Your task to perform on an android device: change keyboard looks Image 0: 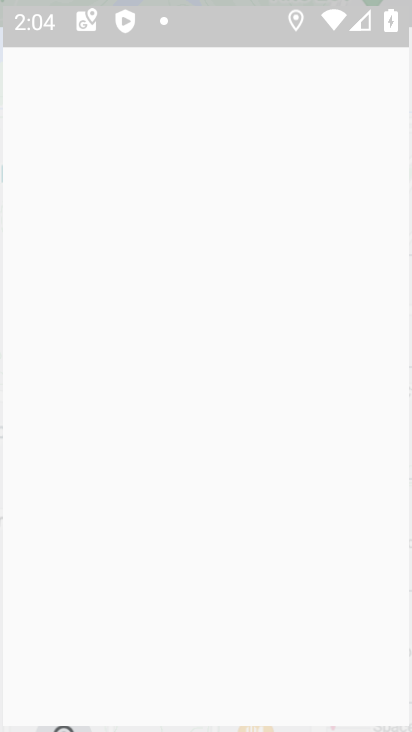
Step 0: press back button
Your task to perform on an android device: change keyboard looks Image 1: 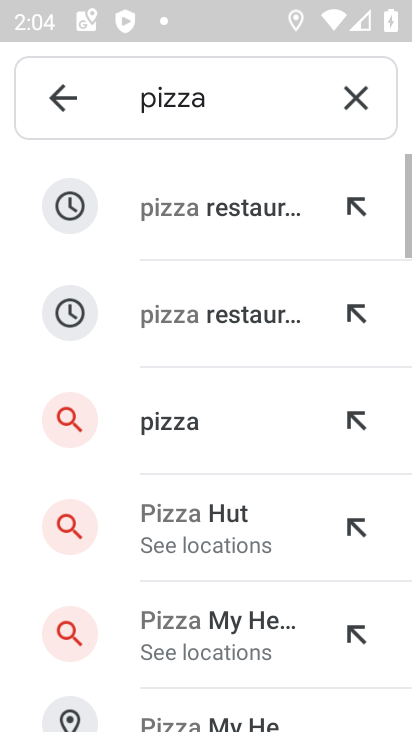
Step 1: press back button
Your task to perform on an android device: change keyboard looks Image 2: 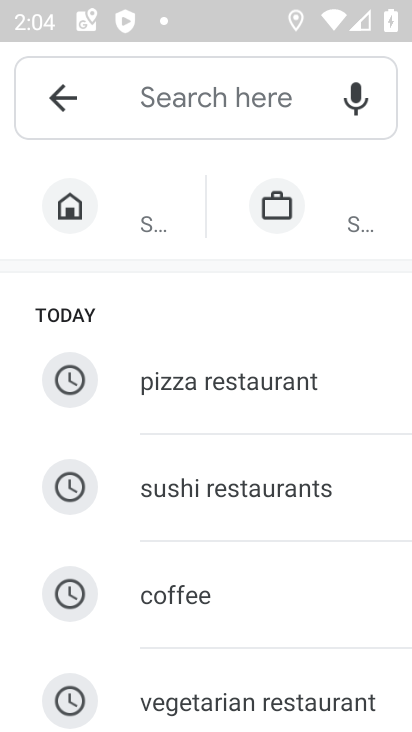
Step 2: press home button
Your task to perform on an android device: change keyboard looks Image 3: 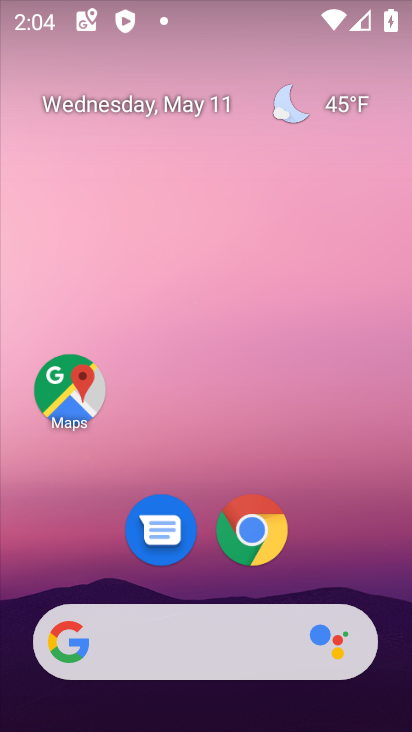
Step 3: drag from (164, 140) to (159, 105)
Your task to perform on an android device: change keyboard looks Image 4: 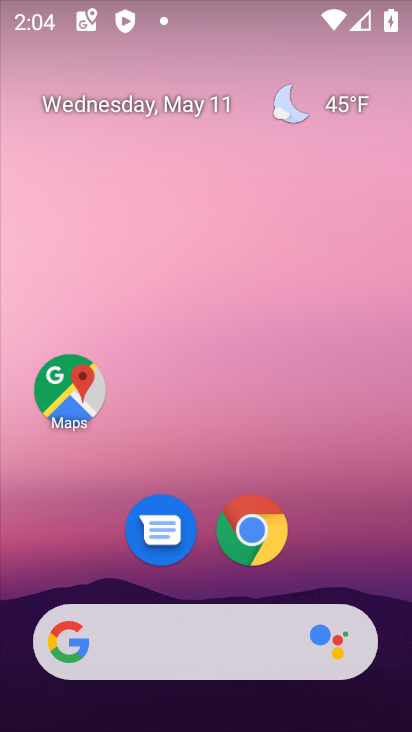
Step 4: drag from (348, 503) to (149, 105)
Your task to perform on an android device: change keyboard looks Image 5: 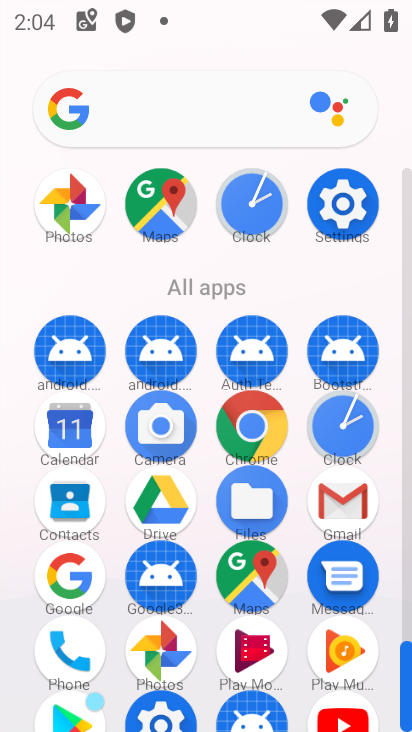
Step 5: drag from (327, 520) to (174, 214)
Your task to perform on an android device: change keyboard looks Image 6: 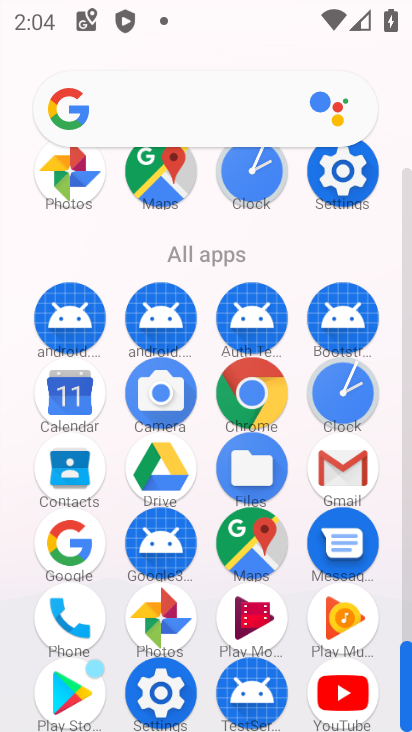
Step 6: click (346, 173)
Your task to perform on an android device: change keyboard looks Image 7: 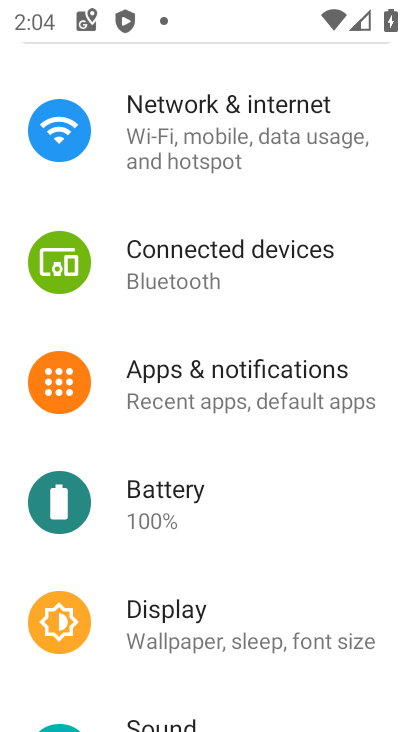
Step 7: drag from (232, 543) to (197, 275)
Your task to perform on an android device: change keyboard looks Image 8: 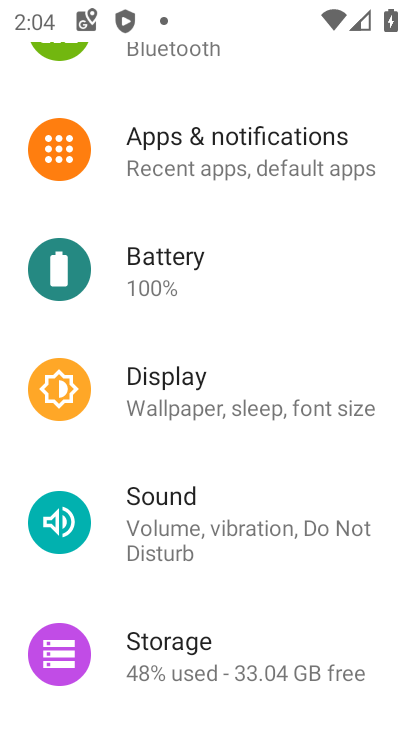
Step 8: drag from (179, 170) to (169, 102)
Your task to perform on an android device: change keyboard looks Image 9: 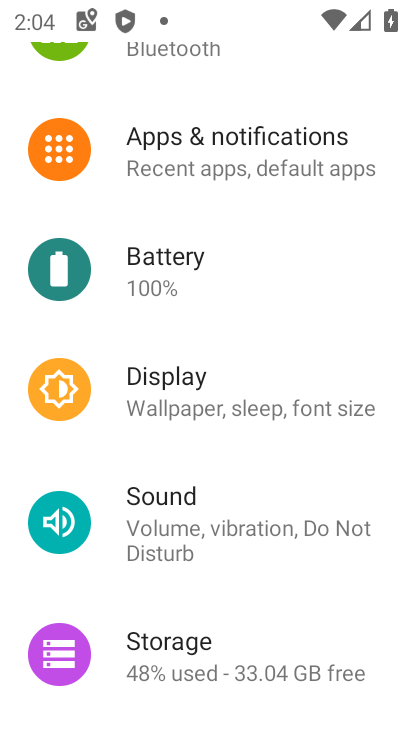
Step 9: drag from (240, 434) to (211, 229)
Your task to perform on an android device: change keyboard looks Image 10: 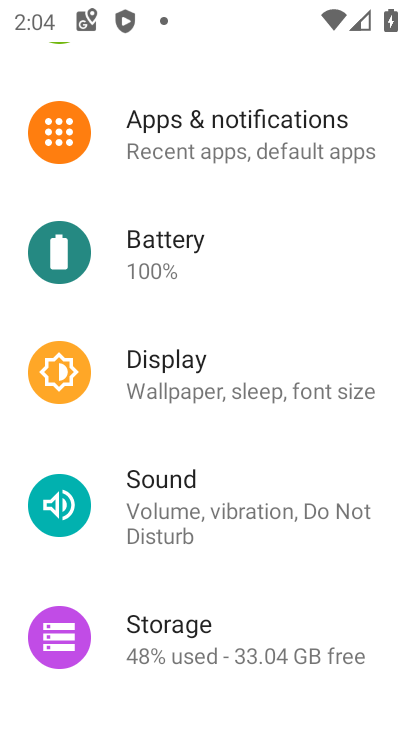
Step 10: drag from (209, 633) to (258, 168)
Your task to perform on an android device: change keyboard looks Image 11: 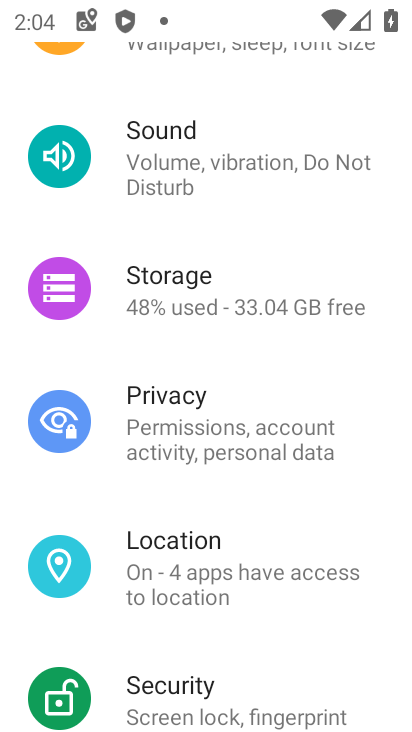
Step 11: drag from (244, 441) to (209, 148)
Your task to perform on an android device: change keyboard looks Image 12: 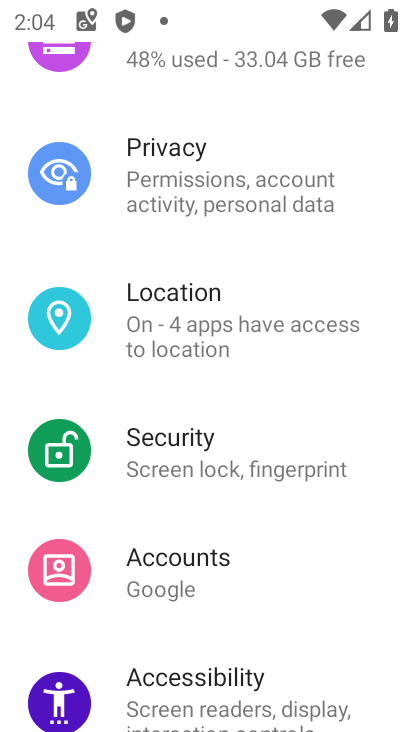
Step 12: drag from (223, 458) to (159, 153)
Your task to perform on an android device: change keyboard looks Image 13: 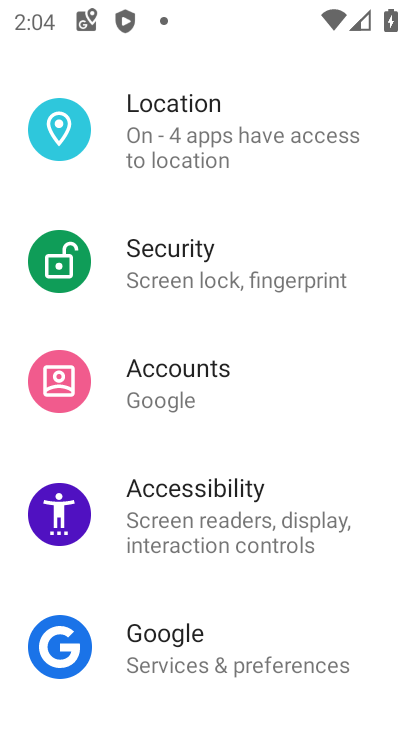
Step 13: drag from (177, 586) to (155, 296)
Your task to perform on an android device: change keyboard looks Image 14: 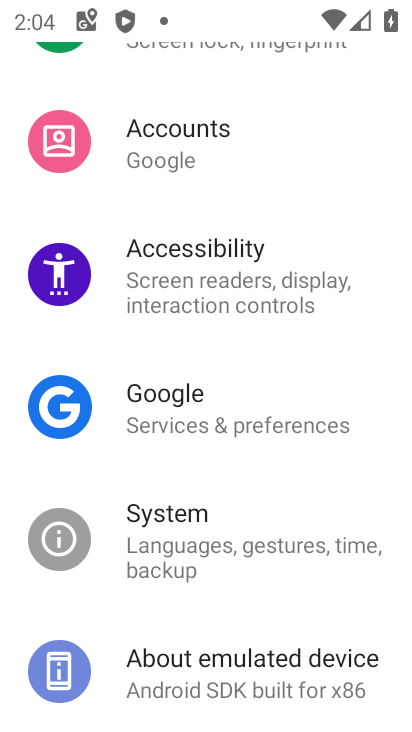
Step 14: drag from (232, 544) to (163, 263)
Your task to perform on an android device: change keyboard looks Image 15: 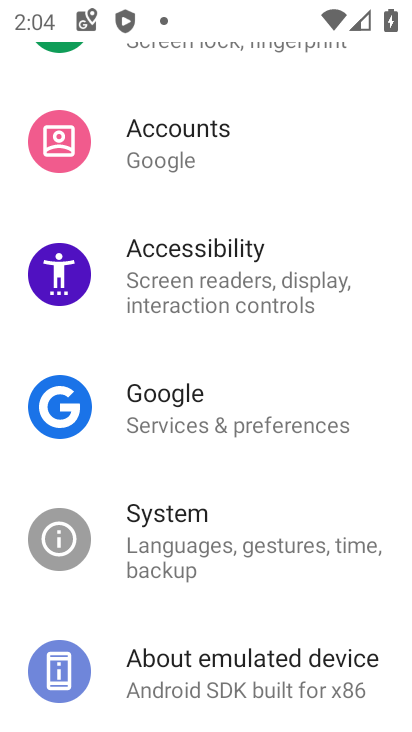
Step 15: click (170, 534)
Your task to perform on an android device: change keyboard looks Image 16: 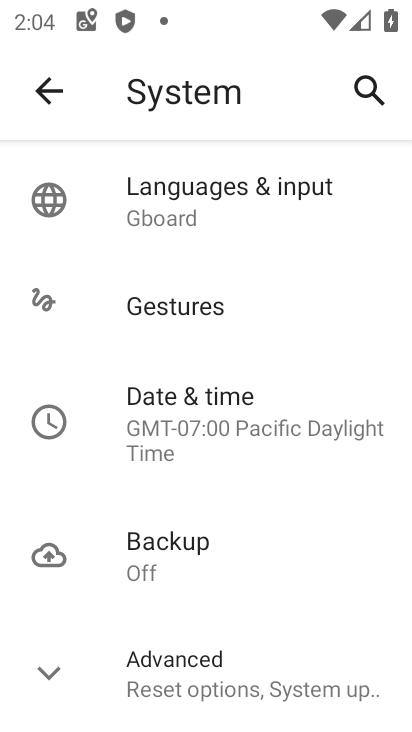
Step 16: click (147, 211)
Your task to perform on an android device: change keyboard looks Image 17: 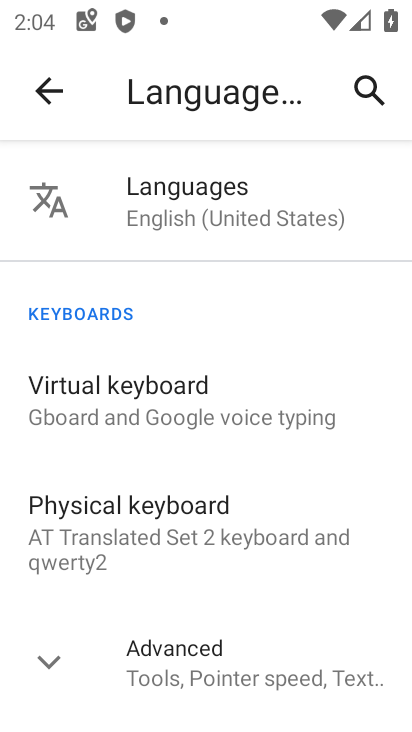
Step 17: click (71, 404)
Your task to perform on an android device: change keyboard looks Image 18: 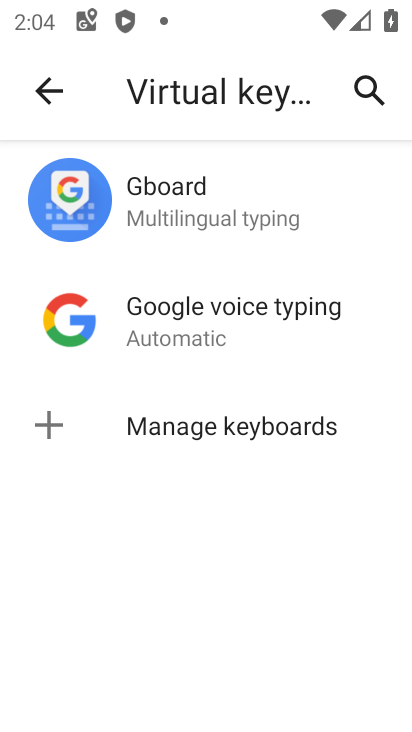
Step 18: click (169, 221)
Your task to perform on an android device: change keyboard looks Image 19: 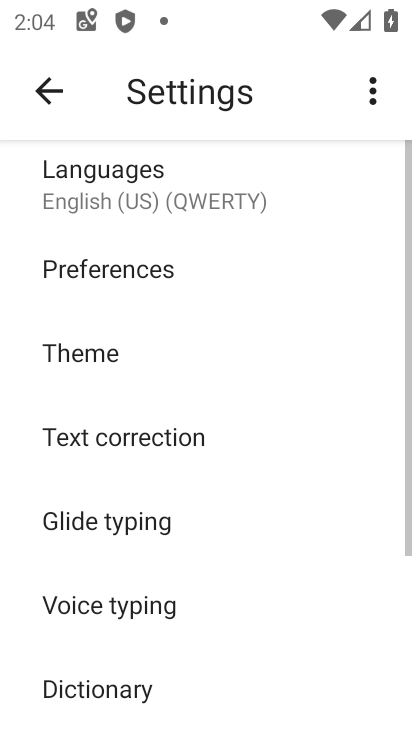
Step 19: click (79, 355)
Your task to perform on an android device: change keyboard looks Image 20: 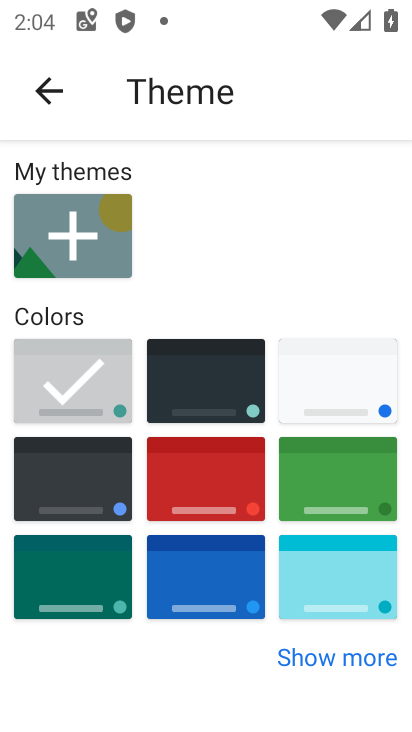
Step 20: click (175, 480)
Your task to perform on an android device: change keyboard looks Image 21: 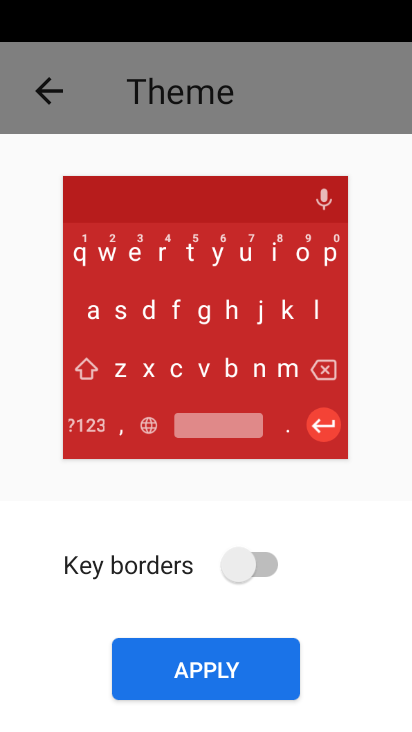
Step 21: click (217, 662)
Your task to perform on an android device: change keyboard looks Image 22: 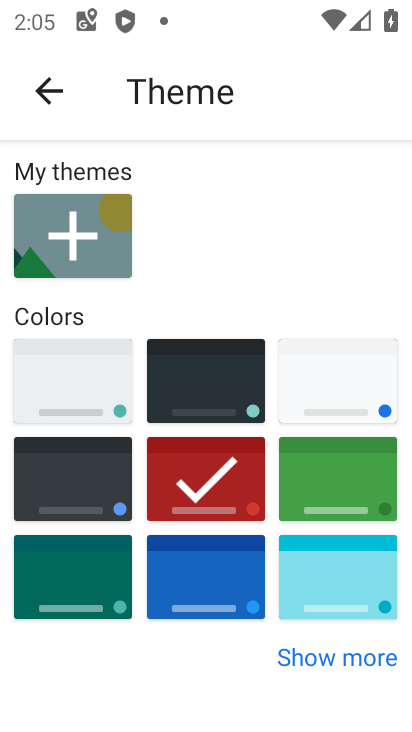
Step 22: task complete